Your task to perform on an android device: Do I have any events this weekend? Image 0: 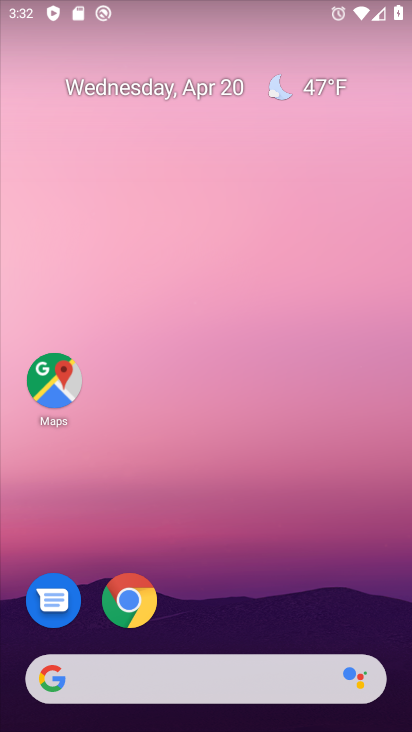
Step 0: click (328, 319)
Your task to perform on an android device: Do I have any events this weekend? Image 1: 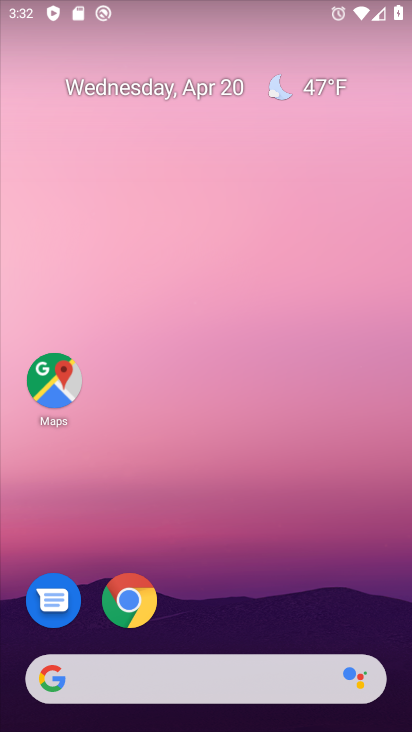
Step 1: drag from (252, 582) to (268, 284)
Your task to perform on an android device: Do I have any events this weekend? Image 2: 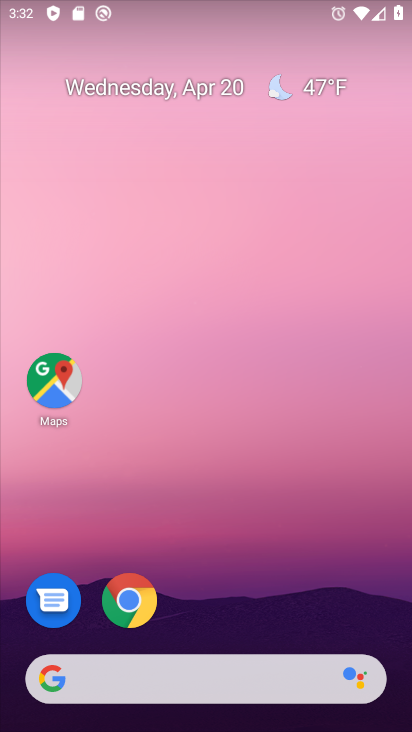
Step 2: drag from (210, 634) to (321, 201)
Your task to perform on an android device: Do I have any events this weekend? Image 3: 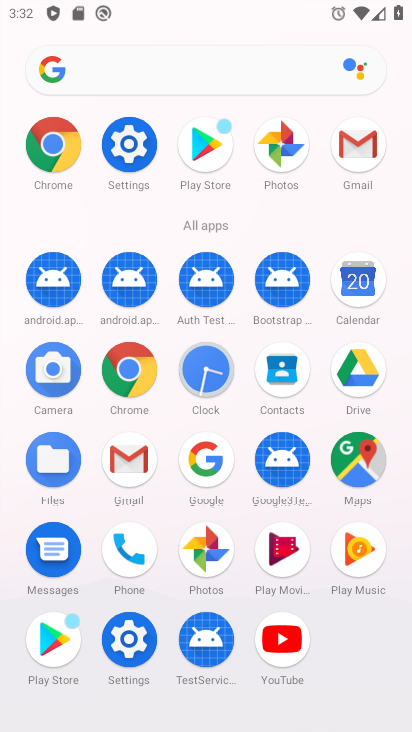
Step 3: click (347, 283)
Your task to perform on an android device: Do I have any events this weekend? Image 4: 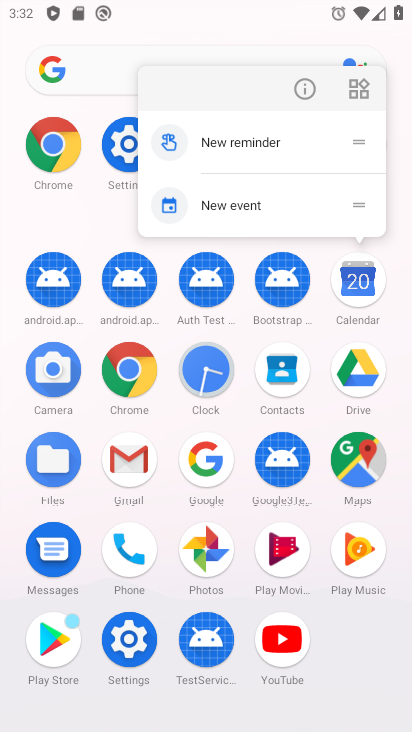
Step 4: click (347, 283)
Your task to perform on an android device: Do I have any events this weekend? Image 5: 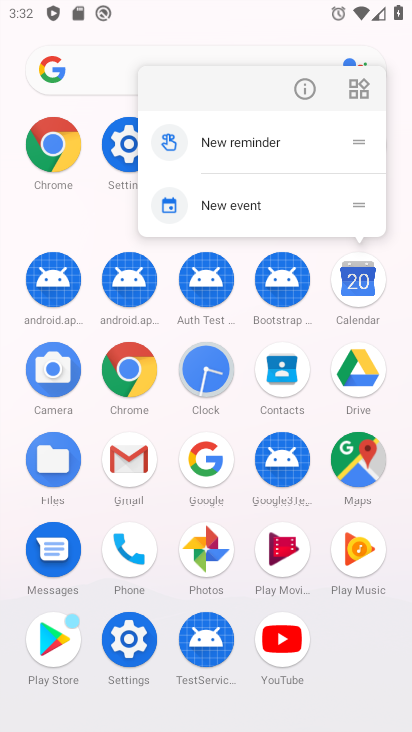
Step 5: click (356, 282)
Your task to perform on an android device: Do I have any events this weekend? Image 6: 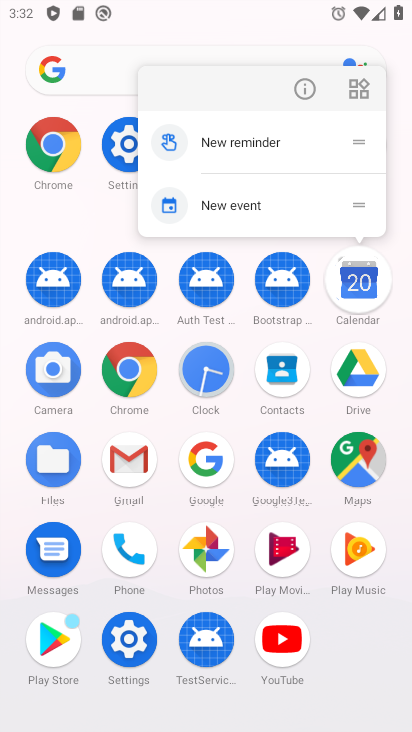
Step 6: click (356, 282)
Your task to perform on an android device: Do I have any events this weekend? Image 7: 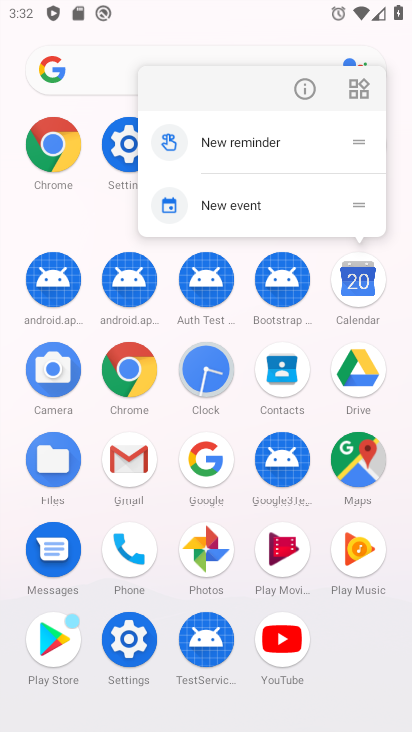
Step 7: click (356, 282)
Your task to perform on an android device: Do I have any events this weekend? Image 8: 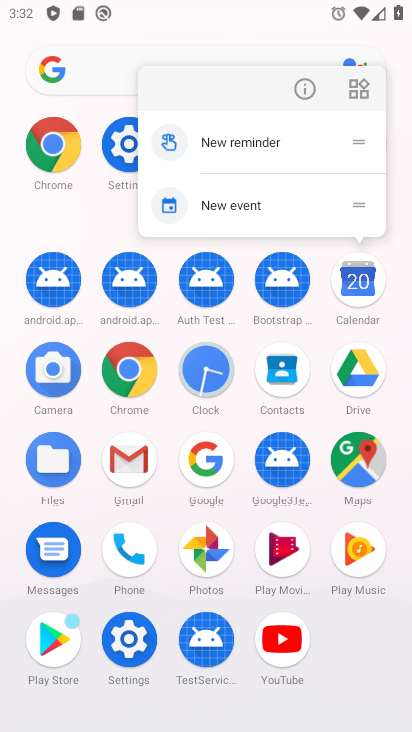
Step 8: click (360, 274)
Your task to perform on an android device: Do I have any events this weekend? Image 9: 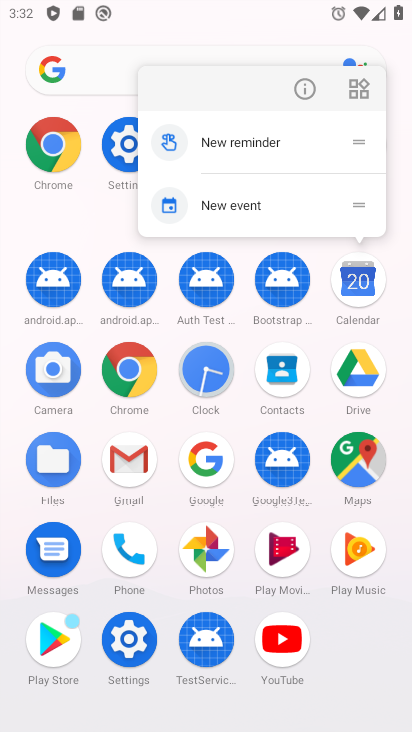
Step 9: click (360, 274)
Your task to perform on an android device: Do I have any events this weekend? Image 10: 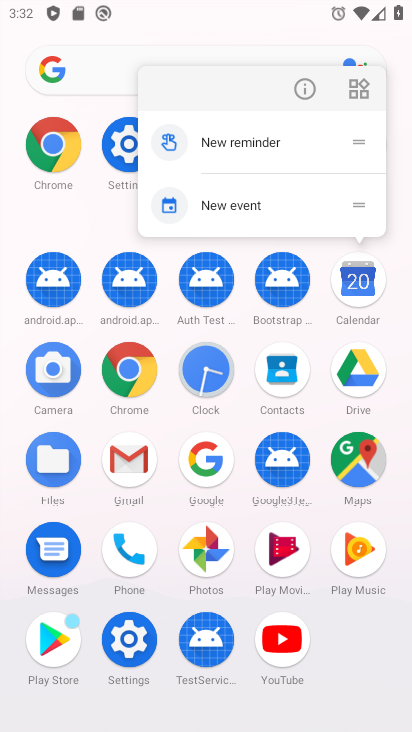
Step 10: click (360, 274)
Your task to perform on an android device: Do I have any events this weekend? Image 11: 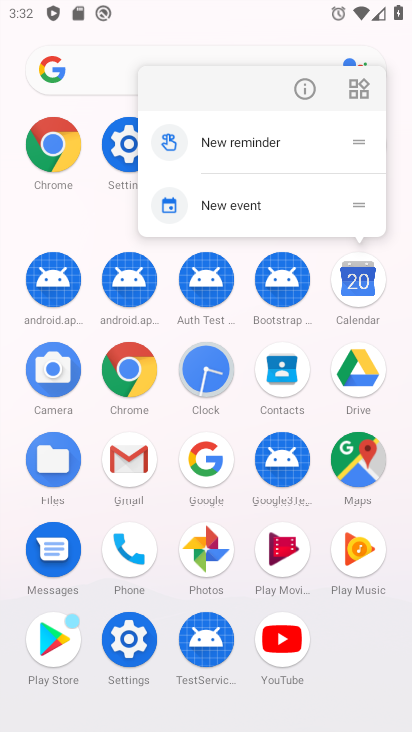
Step 11: click (362, 277)
Your task to perform on an android device: Do I have any events this weekend? Image 12: 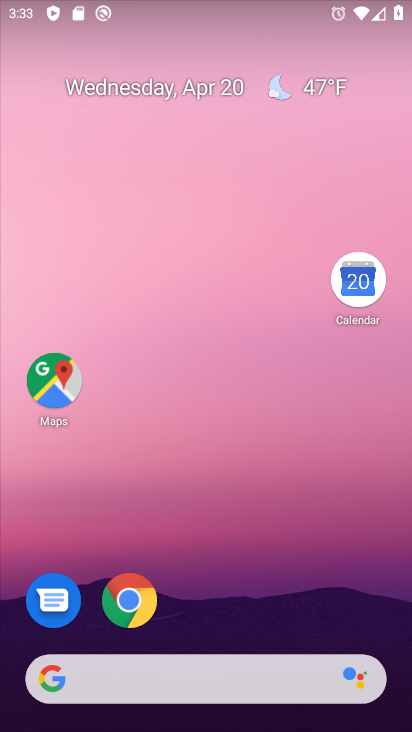
Step 12: click (349, 290)
Your task to perform on an android device: Do I have any events this weekend? Image 13: 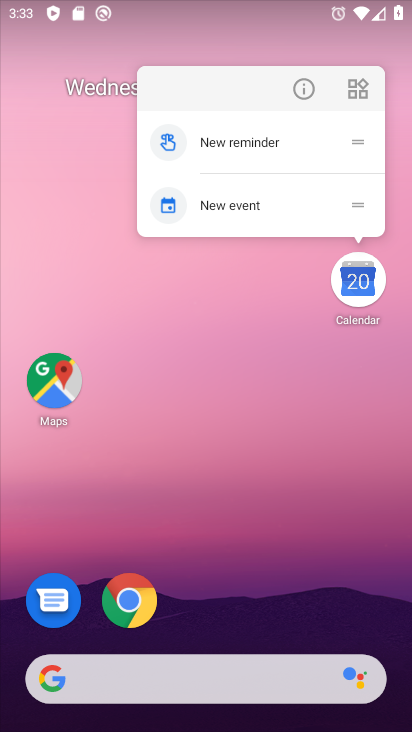
Step 13: click (374, 278)
Your task to perform on an android device: Do I have any events this weekend? Image 14: 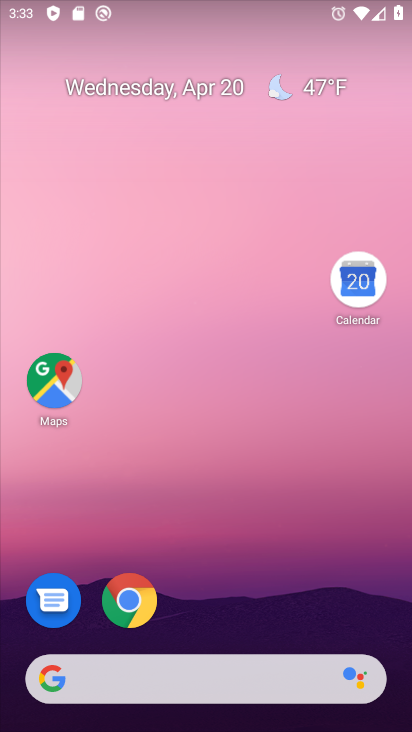
Step 14: click (358, 282)
Your task to perform on an android device: Do I have any events this weekend? Image 15: 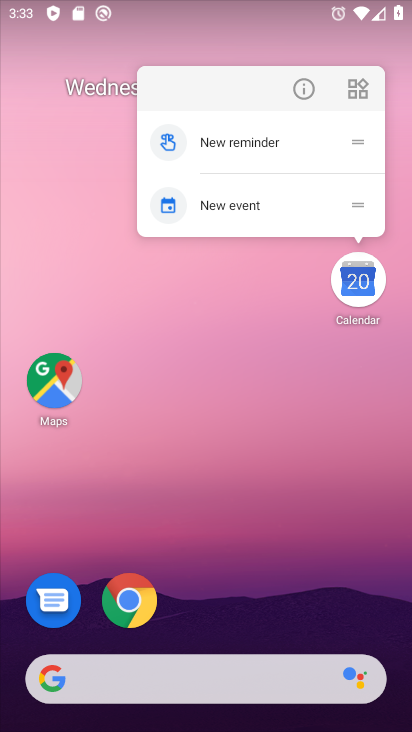
Step 15: click (358, 282)
Your task to perform on an android device: Do I have any events this weekend? Image 16: 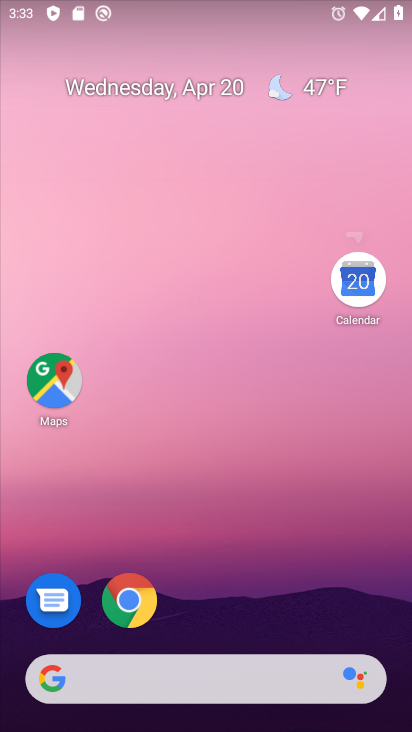
Step 16: click (358, 282)
Your task to perform on an android device: Do I have any events this weekend? Image 17: 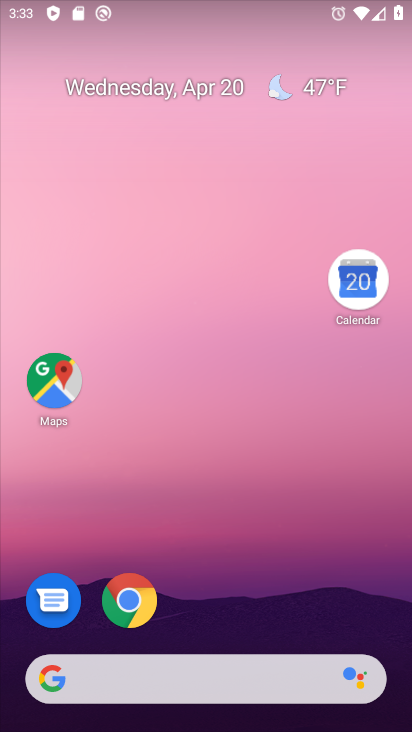
Step 17: click (358, 282)
Your task to perform on an android device: Do I have any events this weekend? Image 18: 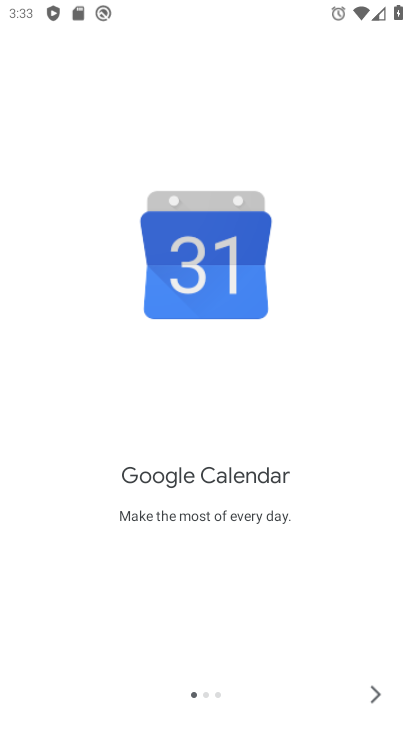
Step 18: click (361, 697)
Your task to perform on an android device: Do I have any events this weekend? Image 19: 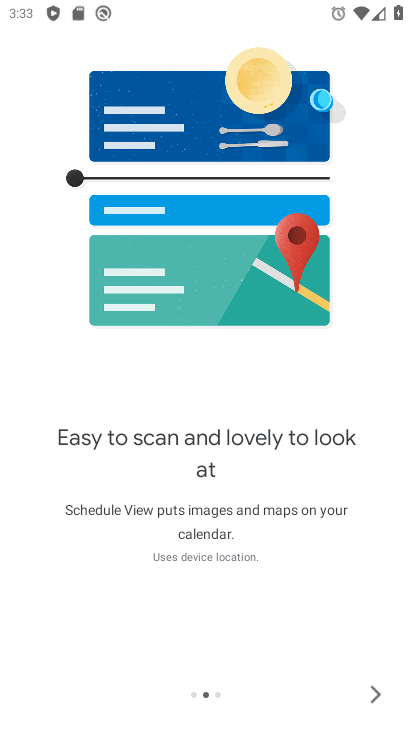
Step 19: click (361, 697)
Your task to perform on an android device: Do I have any events this weekend? Image 20: 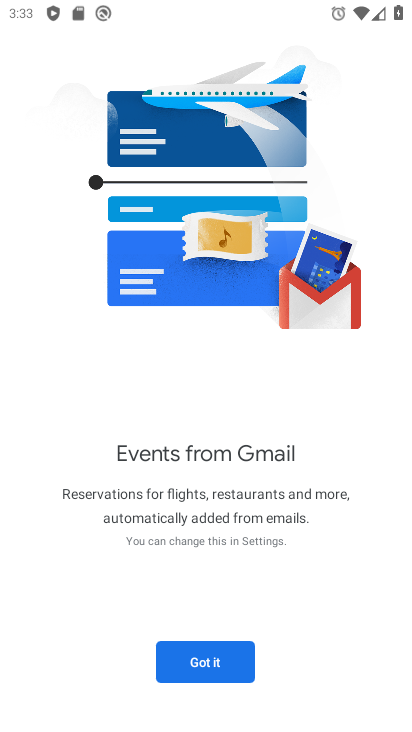
Step 20: click (174, 663)
Your task to perform on an android device: Do I have any events this weekend? Image 21: 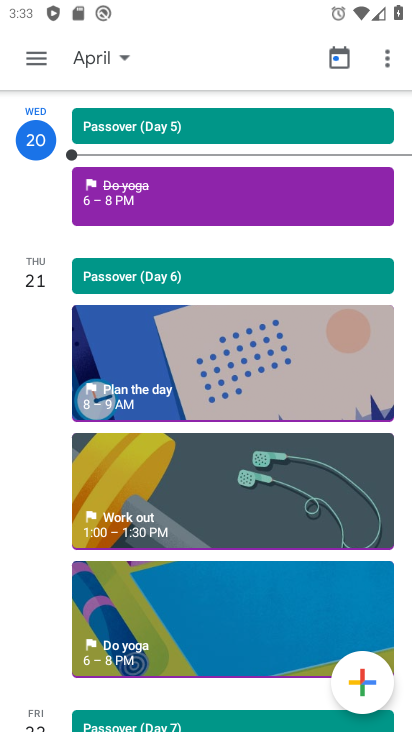
Step 21: click (37, 61)
Your task to perform on an android device: Do I have any events this weekend? Image 22: 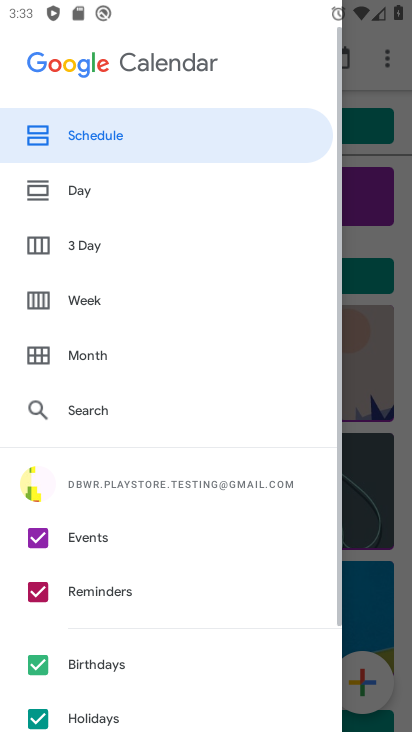
Step 22: click (93, 357)
Your task to perform on an android device: Do I have any events this weekend? Image 23: 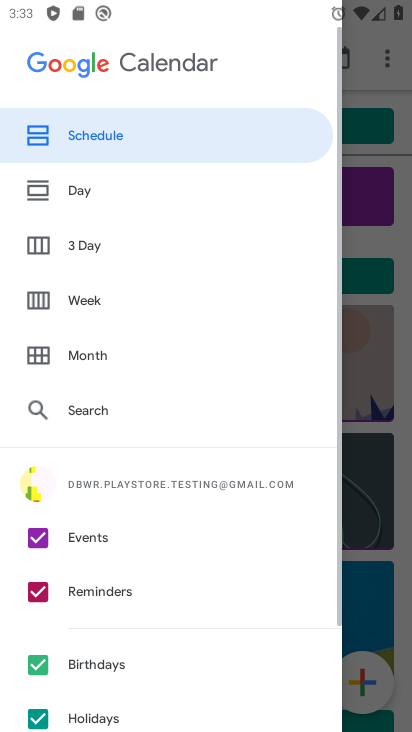
Step 23: click (124, 347)
Your task to perform on an android device: Do I have any events this weekend? Image 24: 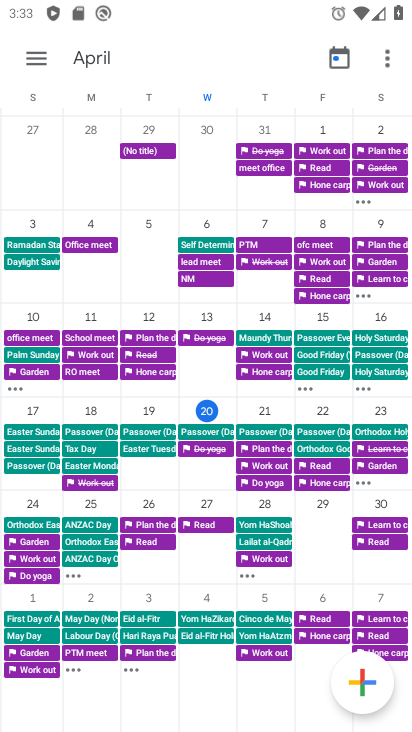
Step 24: click (316, 431)
Your task to perform on an android device: Do I have any events this weekend? Image 25: 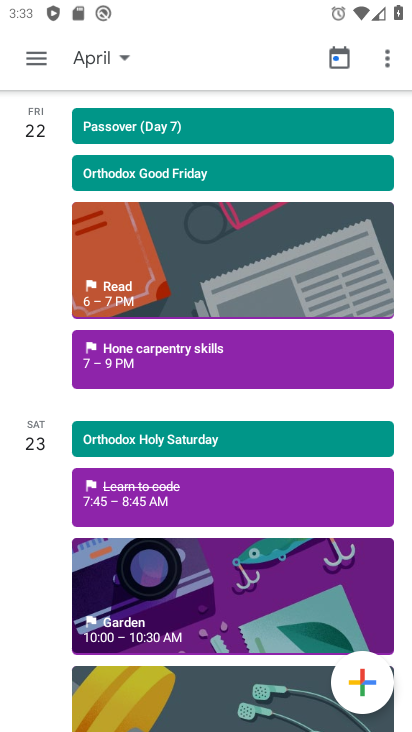
Step 25: click (30, 57)
Your task to perform on an android device: Do I have any events this weekend? Image 26: 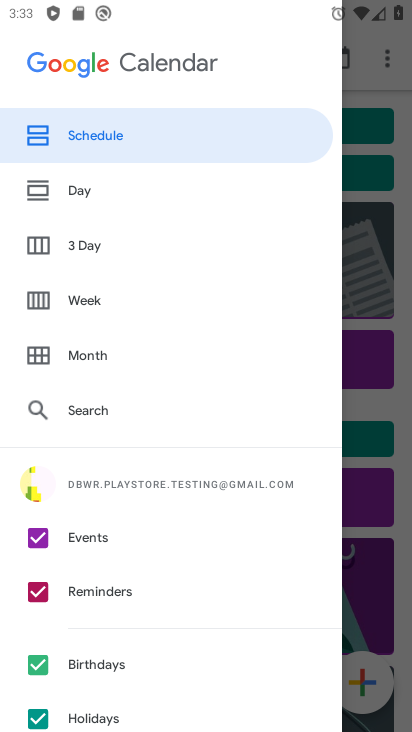
Step 26: click (366, 321)
Your task to perform on an android device: Do I have any events this weekend? Image 27: 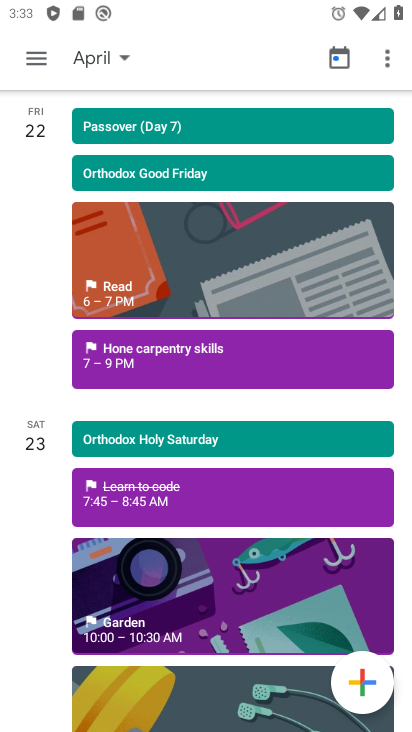
Step 27: click (325, 266)
Your task to perform on an android device: Do I have any events this weekend? Image 28: 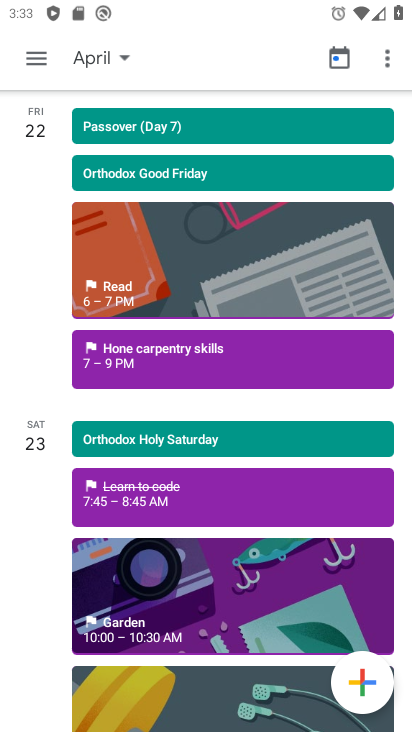
Step 28: task complete